Your task to perform on an android device: Go to CNN.com Image 0: 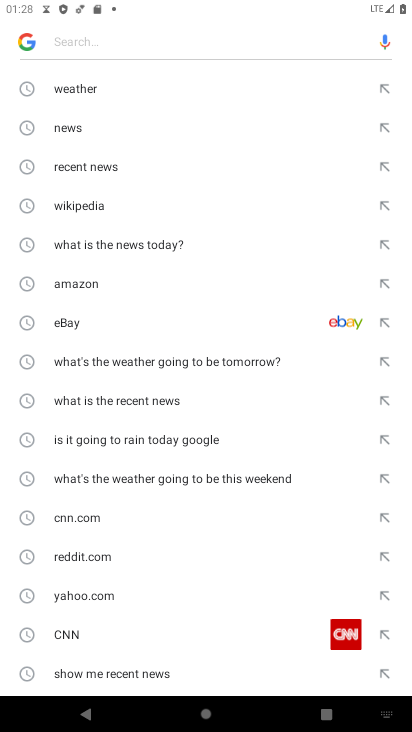
Step 0: press home button
Your task to perform on an android device: Go to CNN.com Image 1: 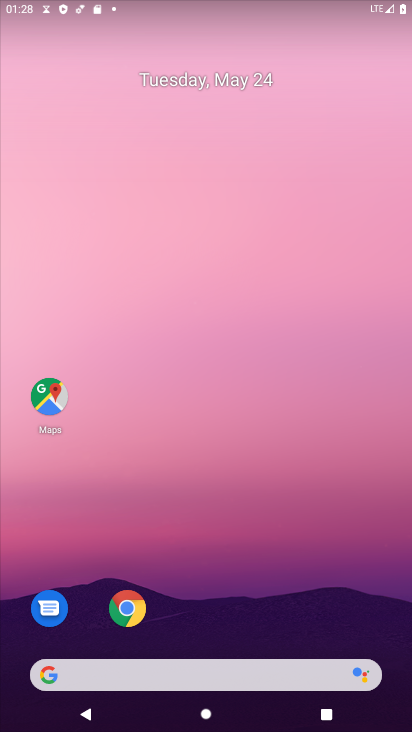
Step 1: click (132, 620)
Your task to perform on an android device: Go to CNN.com Image 2: 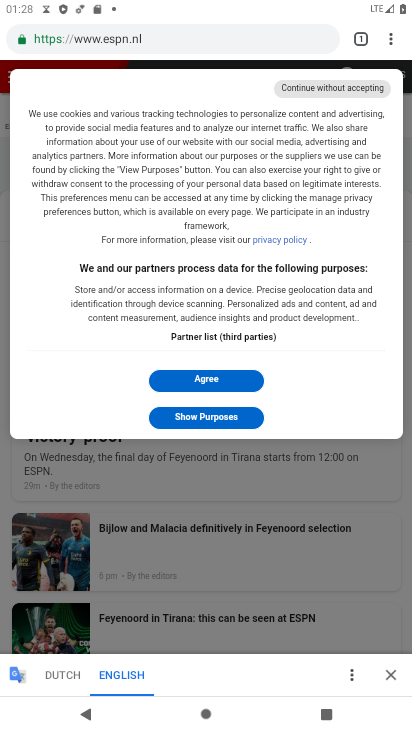
Step 2: click (146, 36)
Your task to perform on an android device: Go to CNN.com Image 3: 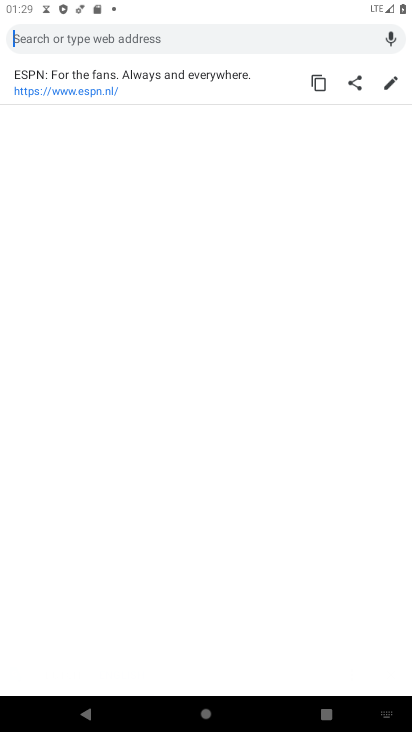
Step 3: type "cnn.com"
Your task to perform on an android device: Go to CNN.com Image 4: 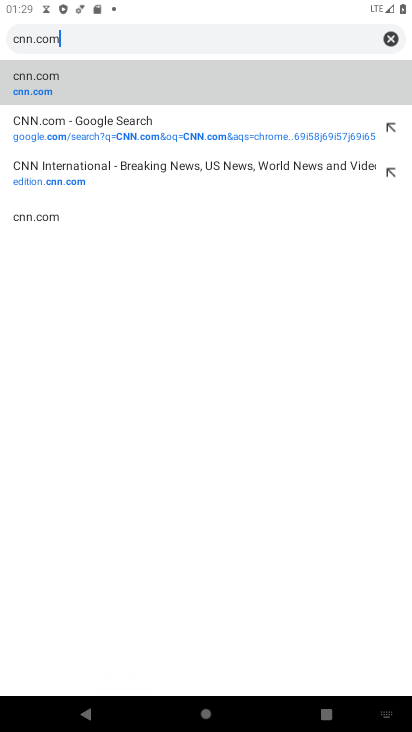
Step 4: click (39, 89)
Your task to perform on an android device: Go to CNN.com Image 5: 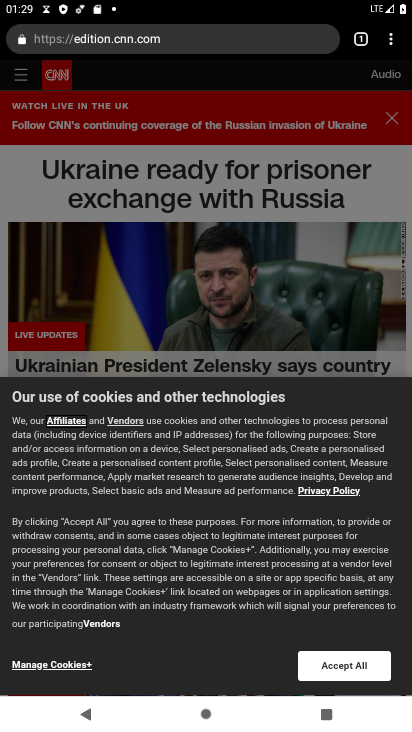
Step 5: task complete